Your task to perform on an android device: Go to network settings Image 0: 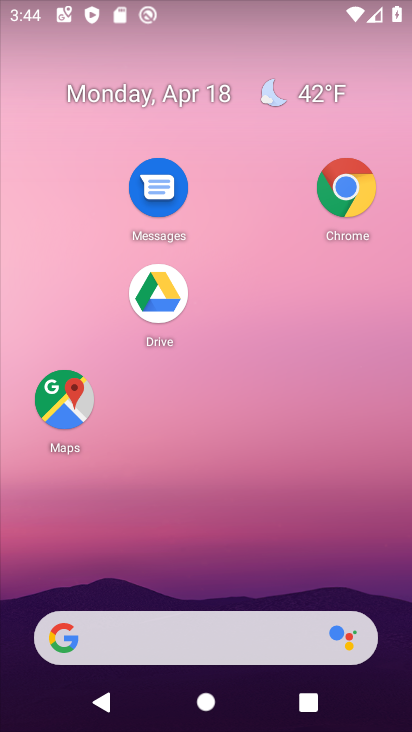
Step 0: drag from (199, 542) to (238, 198)
Your task to perform on an android device: Go to network settings Image 1: 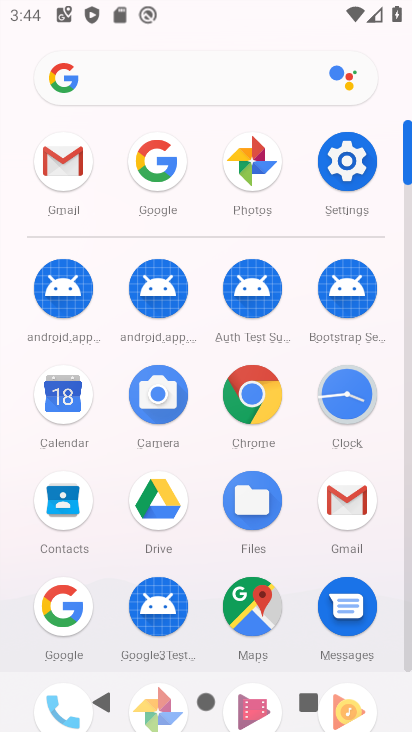
Step 1: click (352, 154)
Your task to perform on an android device: Go to network settings Image 2: 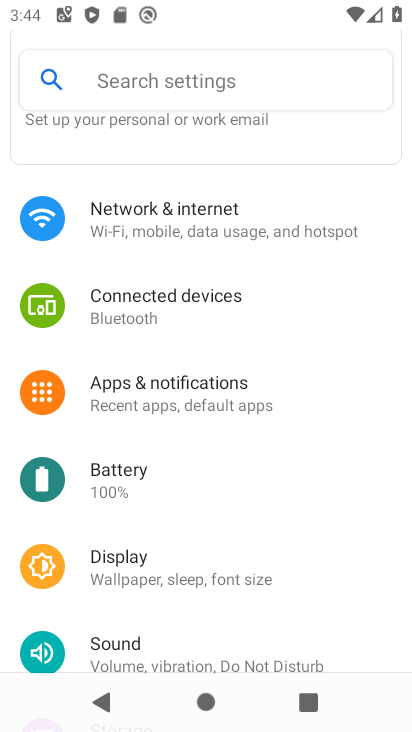
Step 2: click (221, 231)
Your task to perform on an android device: Go to network settings Image 3: 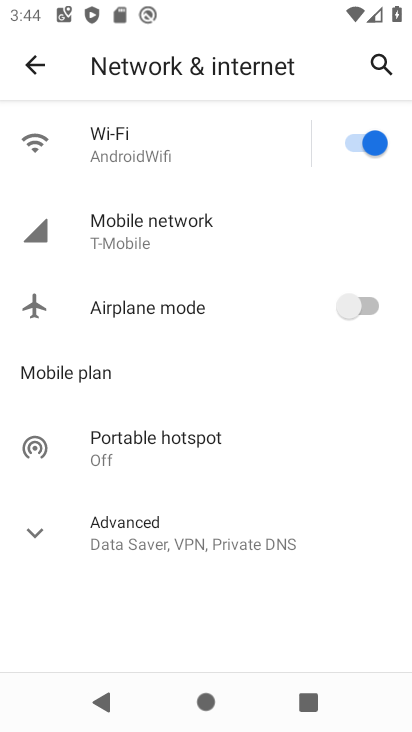
Step 3: click (221, 231)
Your task to perform on an android device: Go to network settings Image 4: 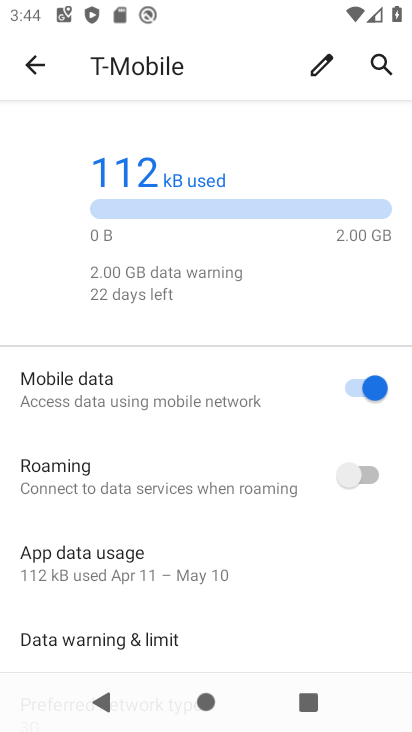
Step 4: task complete